Your task to perform on an android device: toggle sleep mode Image 0: 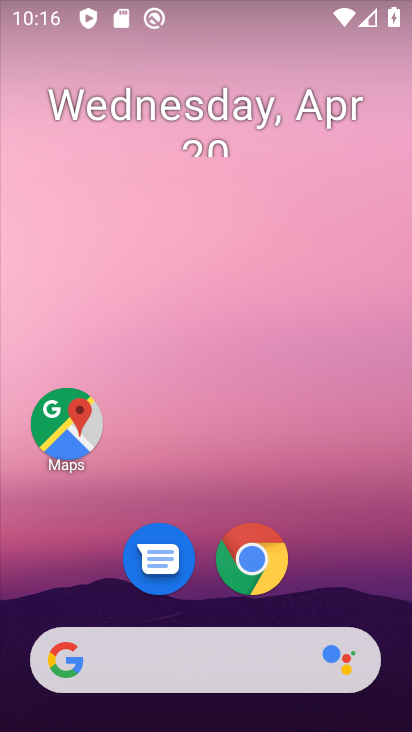
Step 0: drag from (206, 726) to (170, 97)
Your task to perform on an android device: toggle sleep mode Image 1: 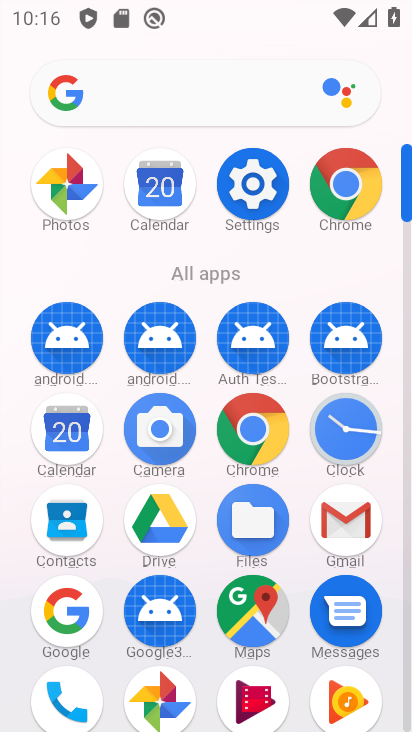
Step 1: click (260, 186)
Your task to perform on an android device: toggle sleep mode Image 2: 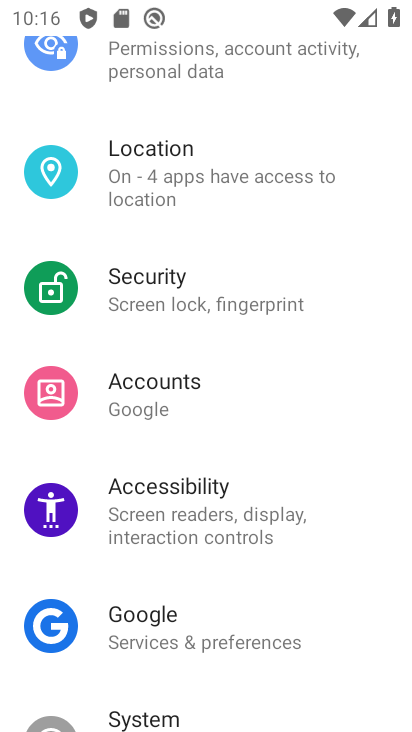
Step 2: drag from (213, 126) to (198, 510)
Your task to perform on an android device: toggle sleep mode Image 3: 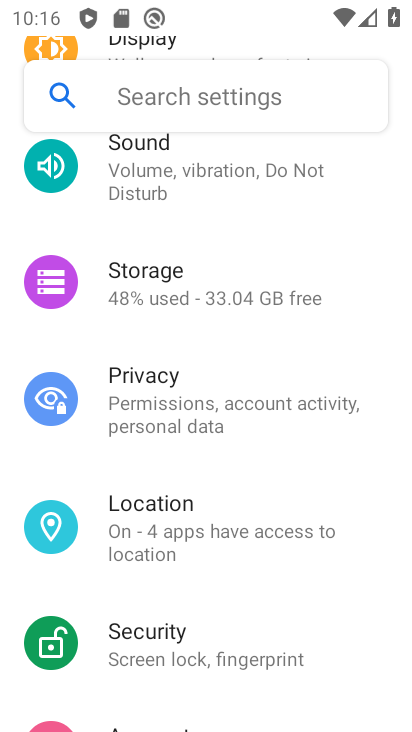
Step 3: drag from (208, 269) to (223, 511)
Your task to perform on an android device: toggle sleep mode Image 4: 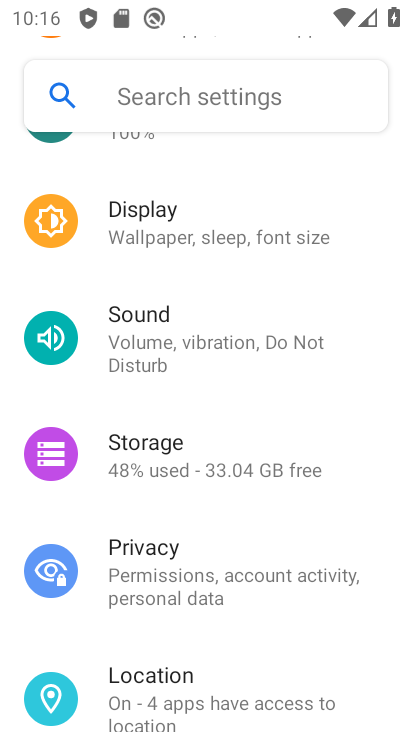
Step 4: click (155, 233)
Your task to perform on an android device: toggle sleep mode Image 5: 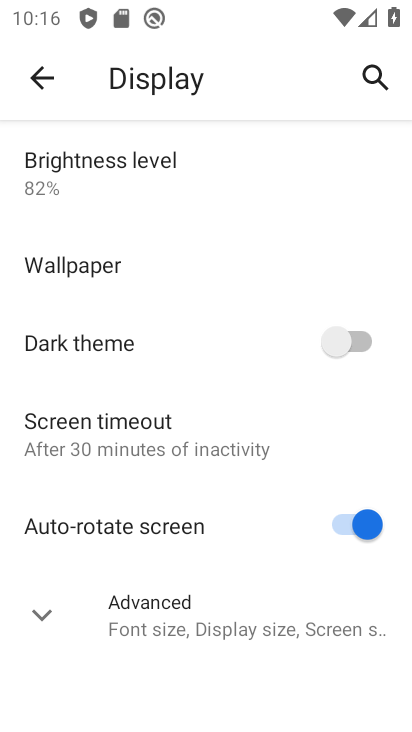
Step 5: task complete